Your task to perform on an android device: Open network settings Image 0: 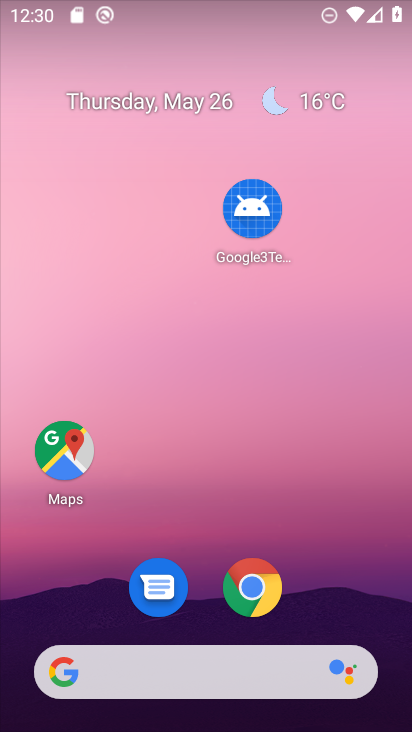
Step 0: drag from (222, 669) to (234, 4)
Your task to perform on an android device: Open network settings Image 1: 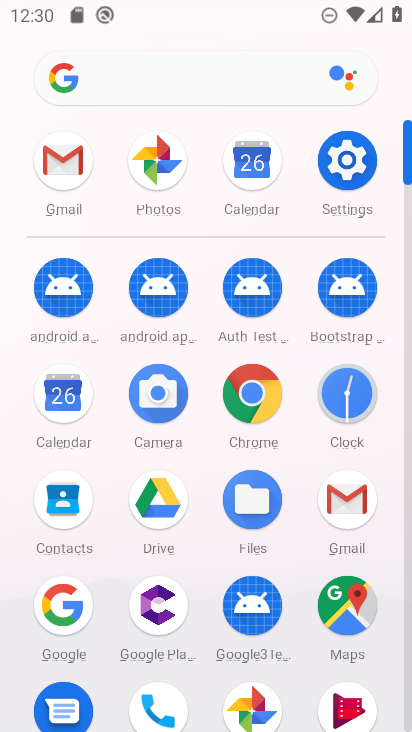
Step 1: click (350, 163)
Your task to perform on an android device: Open network settings Image 2: 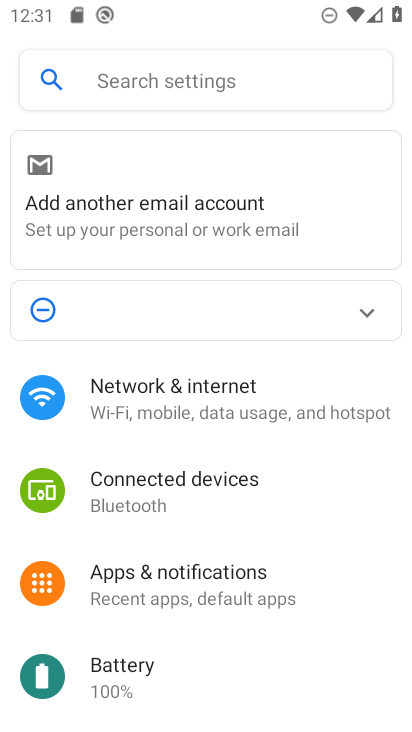
Step 2: click (179, 399)
Your task to perform on an android device: Open network settings Image 3: 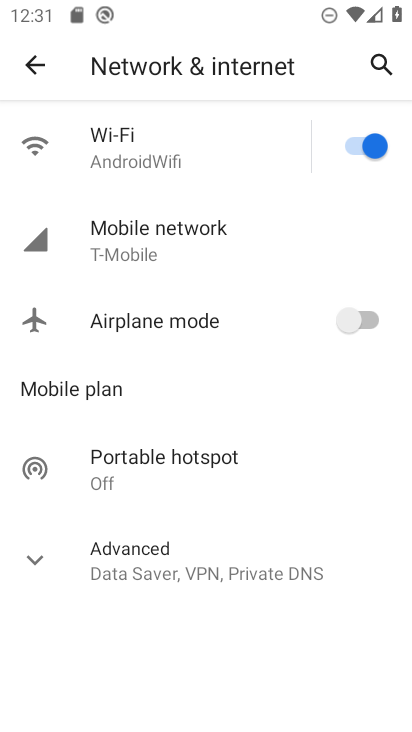
Step 3: task complete